Your task to perform on an android device: Open wifi settings Image 0: 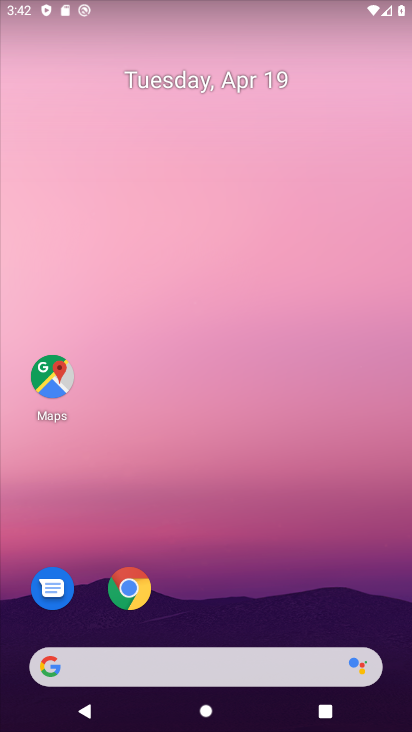
Step 0: drag from (237, 496) to (228, 84)
Your task to perform on an android device: Open wifi settings Image 1: 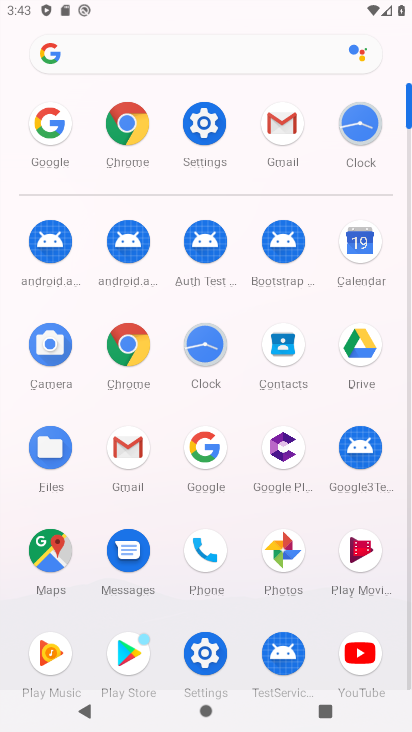
Step 1: click (208, 120)
Your task to perform on an android device: Open wifi settings Image 2: 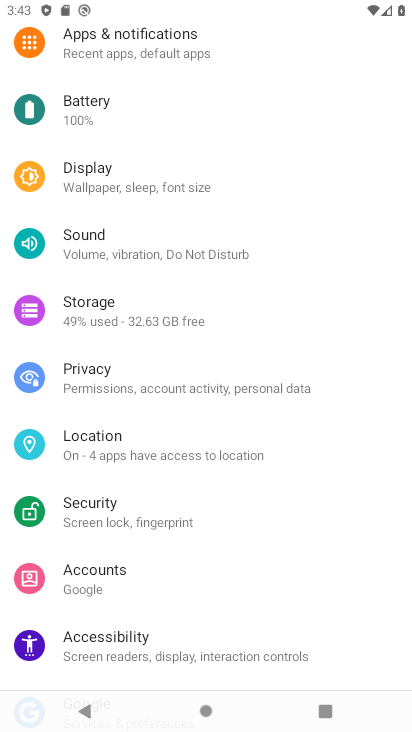
Step 2: drag from (226, 131) to (169, 539)
Your task to perform on an android device: Open wifi settings Image 3: 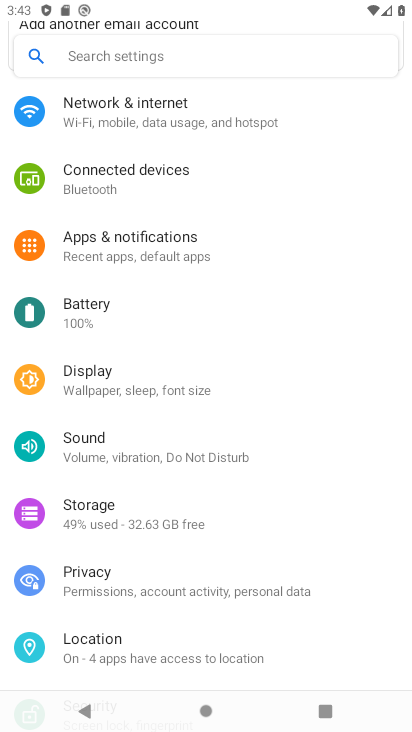
Step 3: click (156, 122)
Your task to perform on an android device: Open wifi settings Image 4: 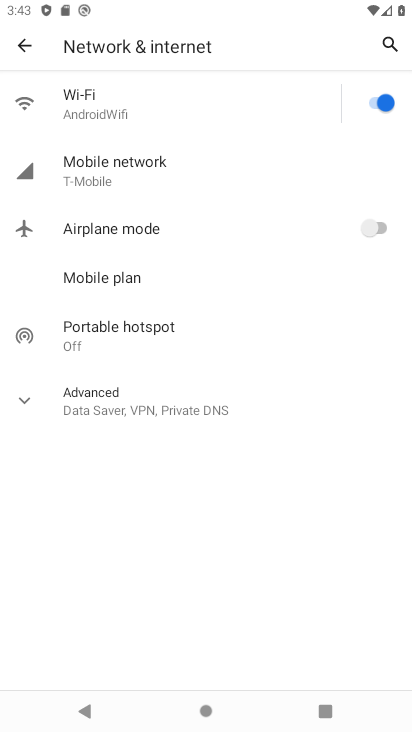
Step 4: click (139, 122)
Your task to perform on an android device: Open wifi settings Image 5: 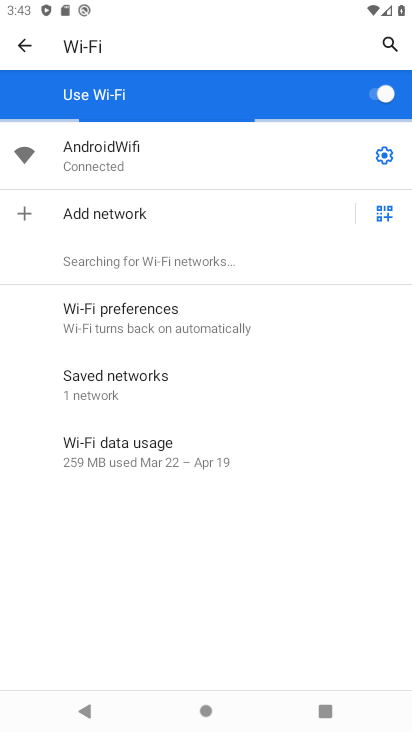
Step 5: task complete